Your task to perform on an android device: Clear the shopping cart on walmart. Add acer nitro to the cart on walmart, then select checkout. Image 0: 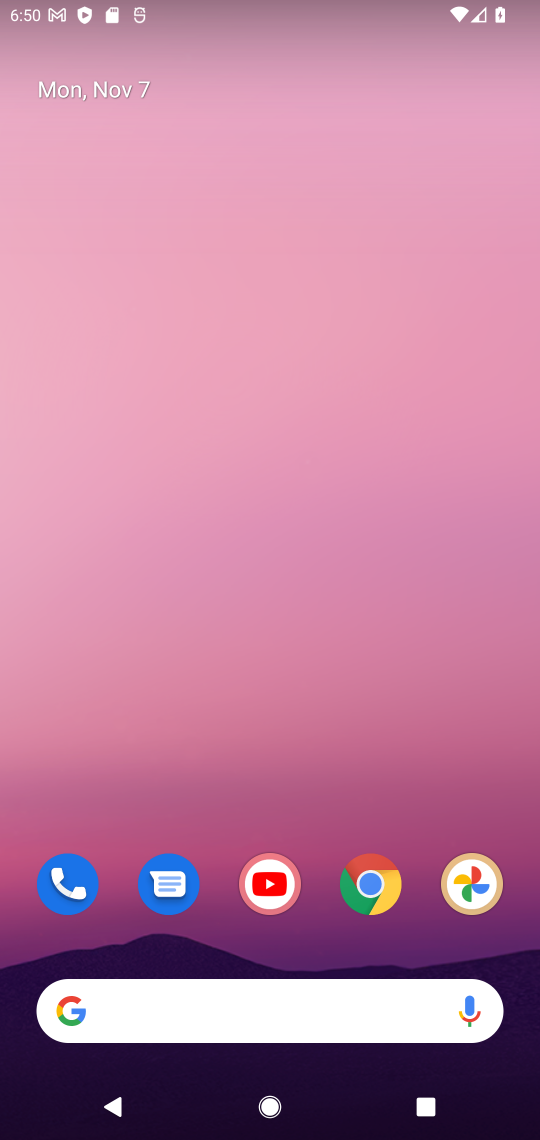
Step 0: click (381, 880)
Your task to perform on an android device: Clear the shopping cart on walmart. Add acer nitro to the cart on walmart, then select checkout. Image 1: 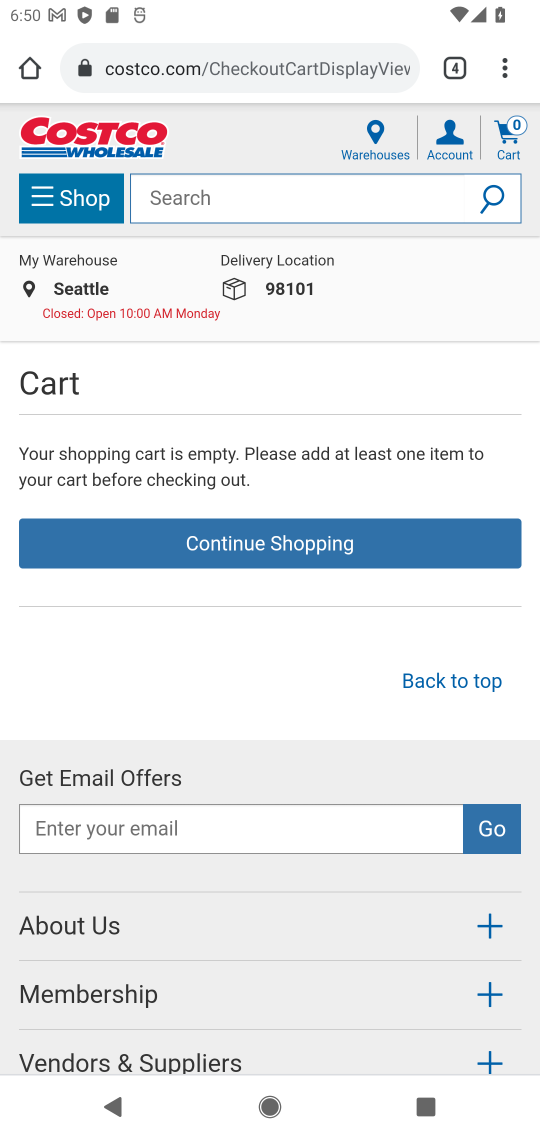
Step 1: click (445, 70)
Your task to perform on an android device: Clear the shopping cart on walmart. Add acer nitro to the cart on walmart, then select checkout. Image 2: 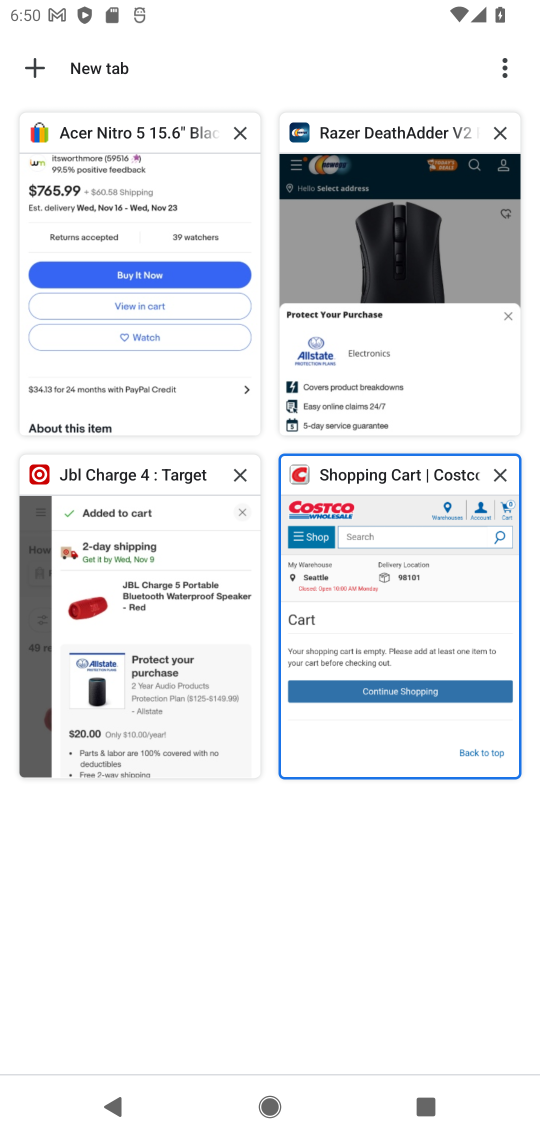
Step 2: click (36, 66)
Your task to perform on an android device: Clear the shopping cart on walmart. Add acer nitro to the cart on walmart, then select checkout. Image 3: 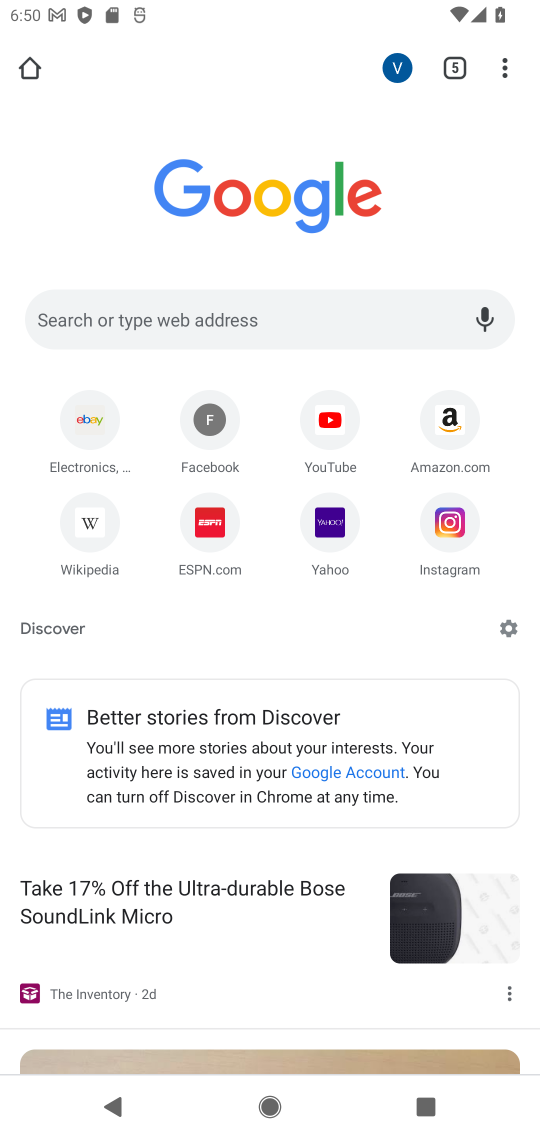
Step 3: click (93, 324)
Your task to perform on an android device: Clear the shopping cart on walmart. Add acer nitro to the cart on walmart, then select checkout. Image 4: 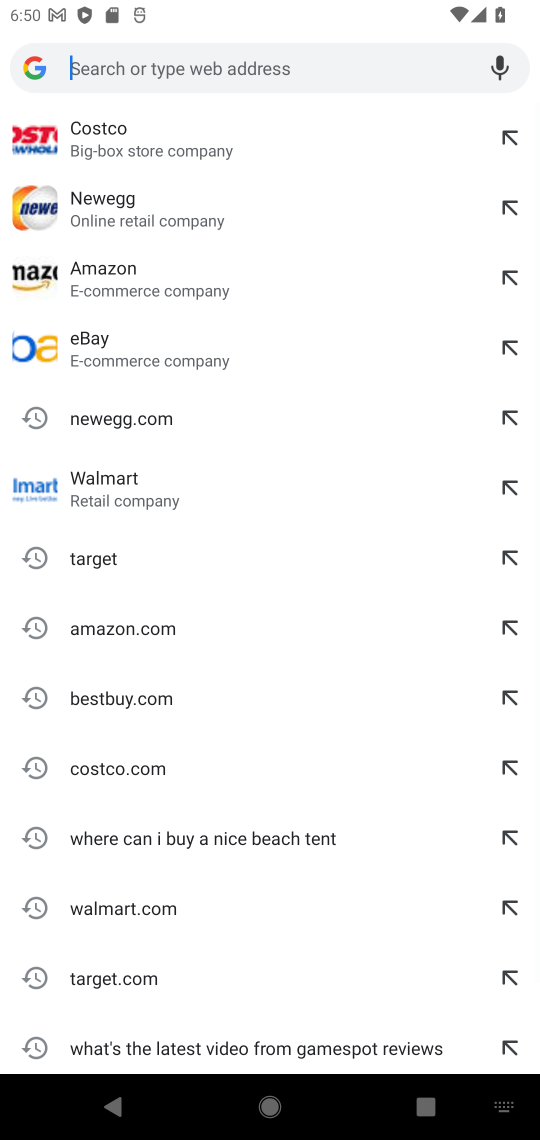
Step 4: click (109, 497)
Your task to perform on an android device: Clear the shopping cart on walmart. Add acer nitro to the cart on walmart, then select checkout. Image 5: 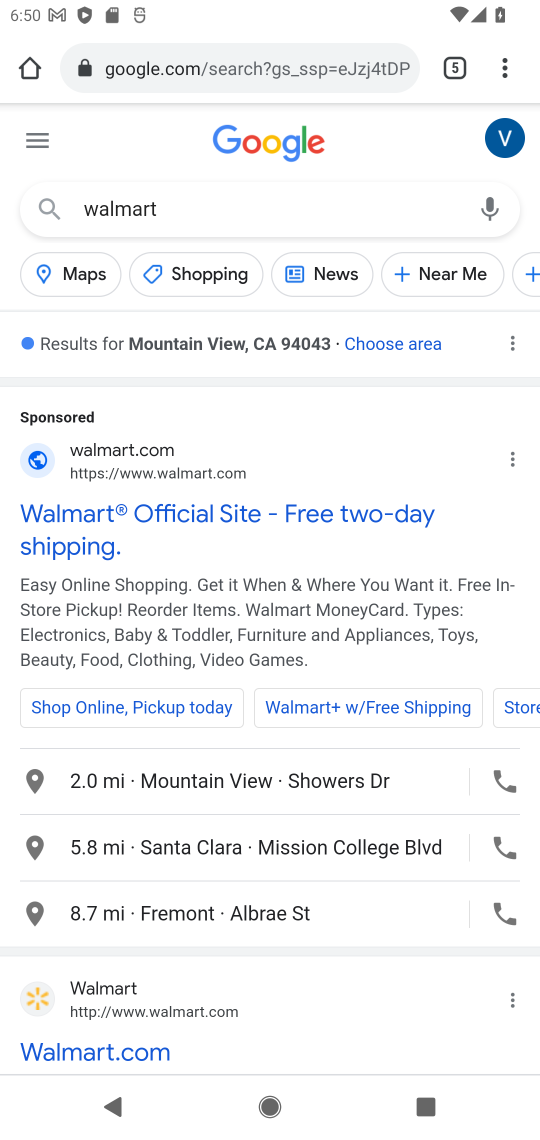
Step 5: drag from (297, 960) to (384, 328)
Your task to perform on an android device: Clear the shopping cart on walmart. Add acer nitro to the cart on walmart, then select checkout. Image 6: 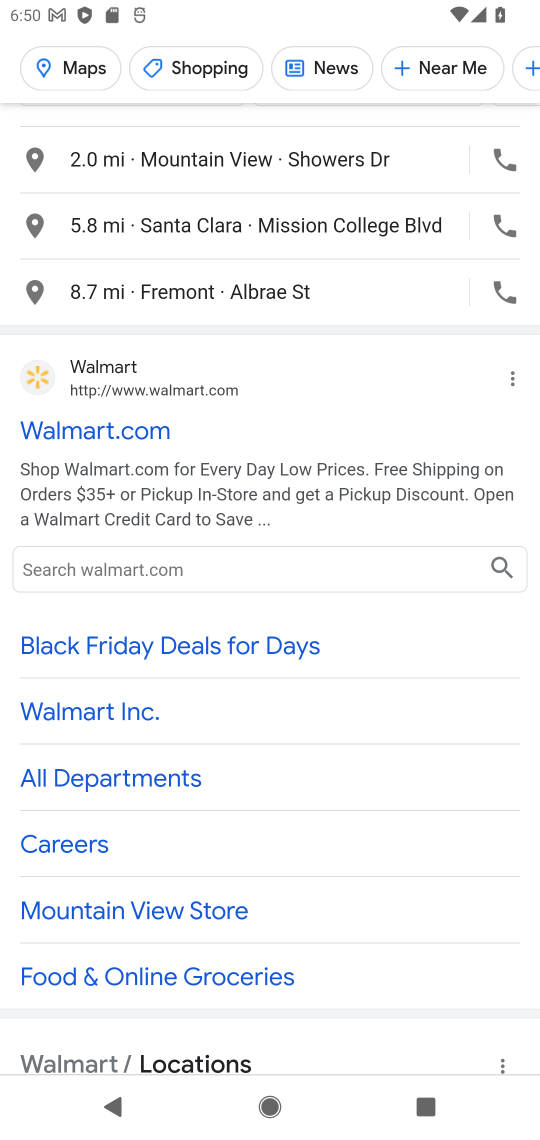
Step 6: click (128, 560)
Your task to perform on an android device: Clear the shopping cart on walmart. Add acer nitro to the cart on walmart, then select checkout. Image 7: 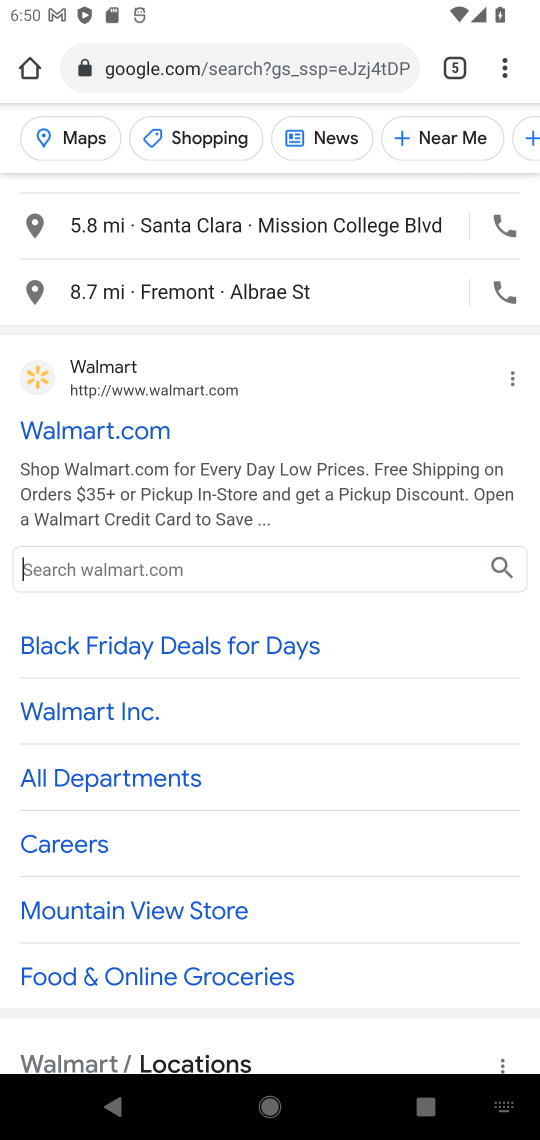
Step 7: type "acer nitro"
Your task to perform on an android device: Clear the shopping cart on walmart. Add acer nitro to the cart on walmart, then select checkout. Image 8: 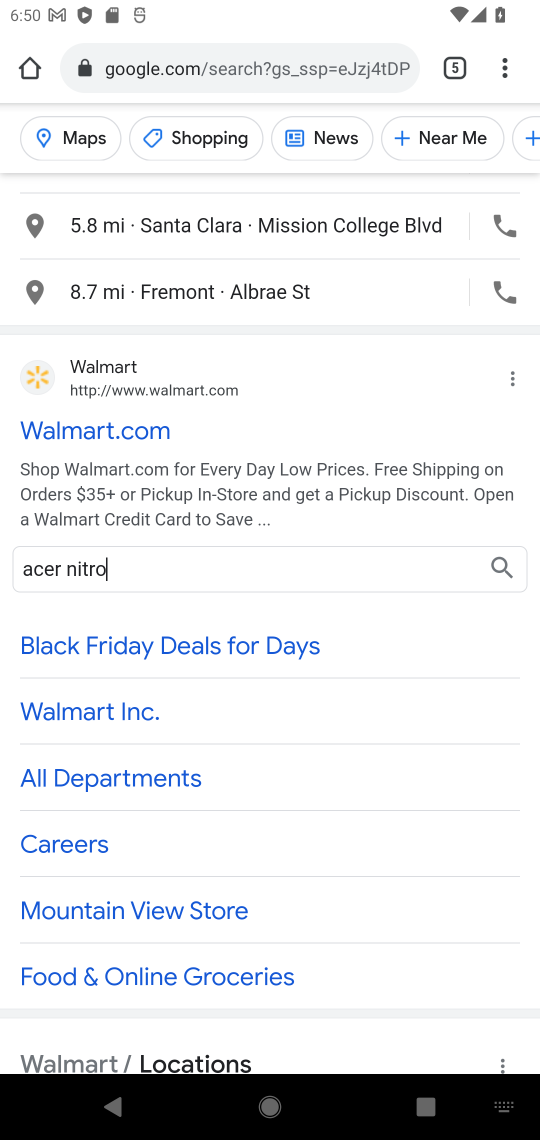
Step 8: click (502, 568)
Your task to perform on an android device: Clear the shopping cart on walmart. Add acer nitro to the cart on walmart, then select checkout. Image 9: 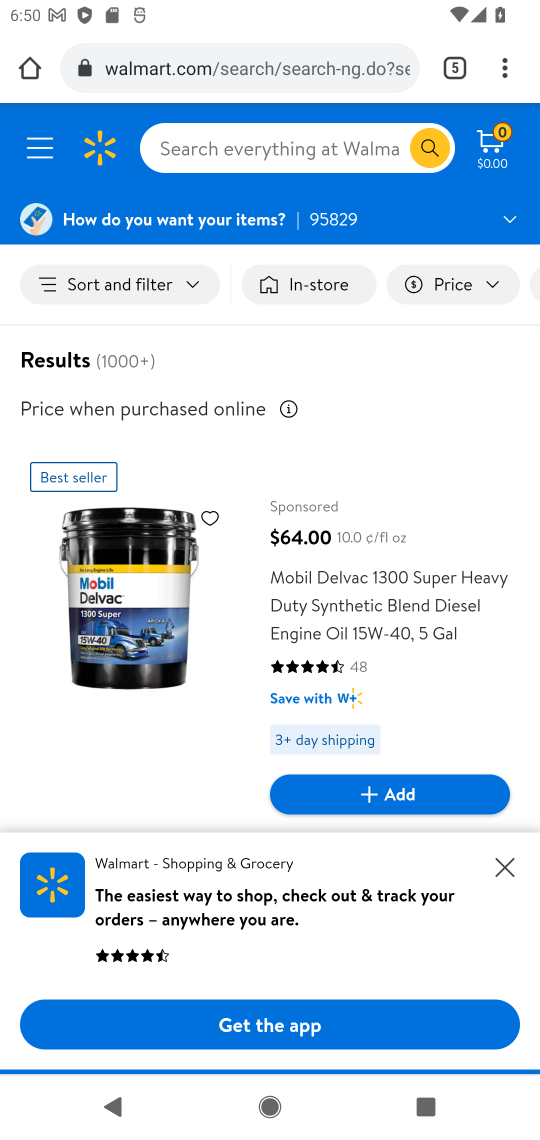
Step 9: click (504, 870)
Your task to perform on an android device: Clear the shopping cart on walmart. Add acer nitro to the cart on walmart, then select checkout. Image 10: 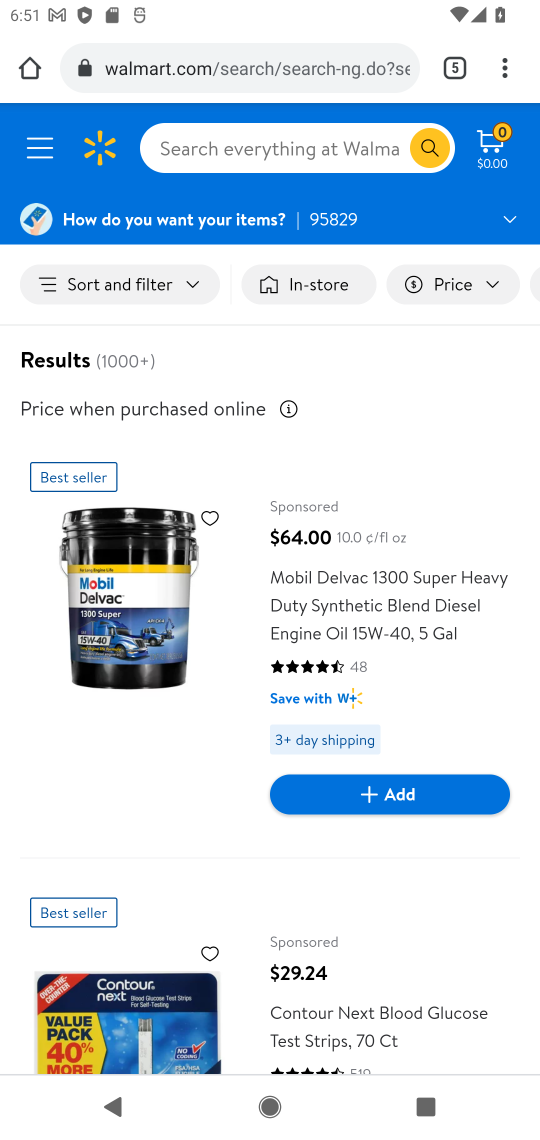
Step 10: click (269, 148)
Your task to perform on an android device: Clear the shopping cart on walmart. Add acer nitro to the cart on walmart, then select checkout. Image 11: 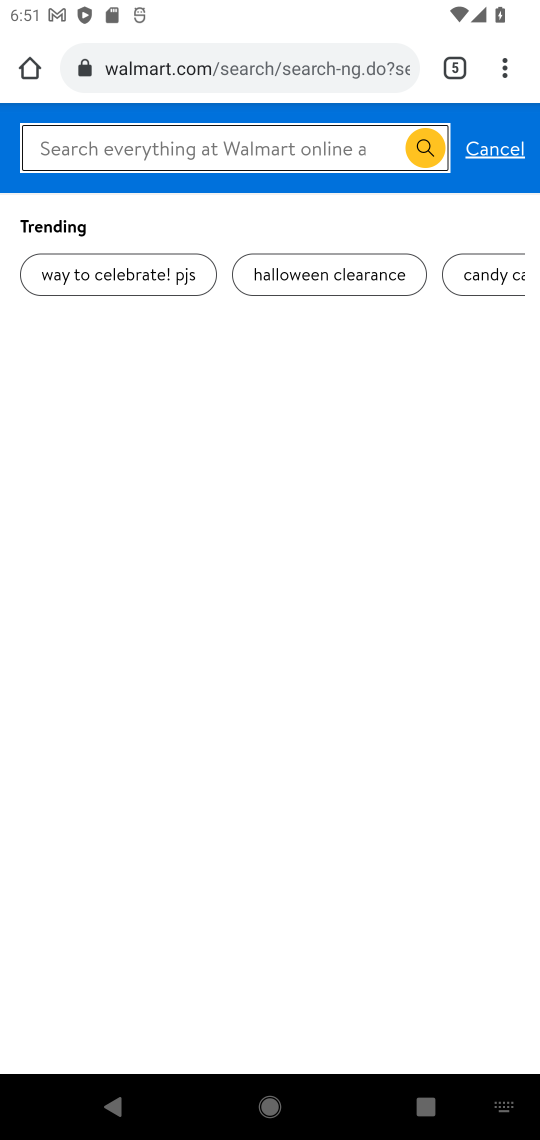
Step 11: type "acer nitro"
Your task to perform on an android device: Clear the shopping cart on walmart. Add acer nitro to the cart on walmart, then select checkout. Image 12: 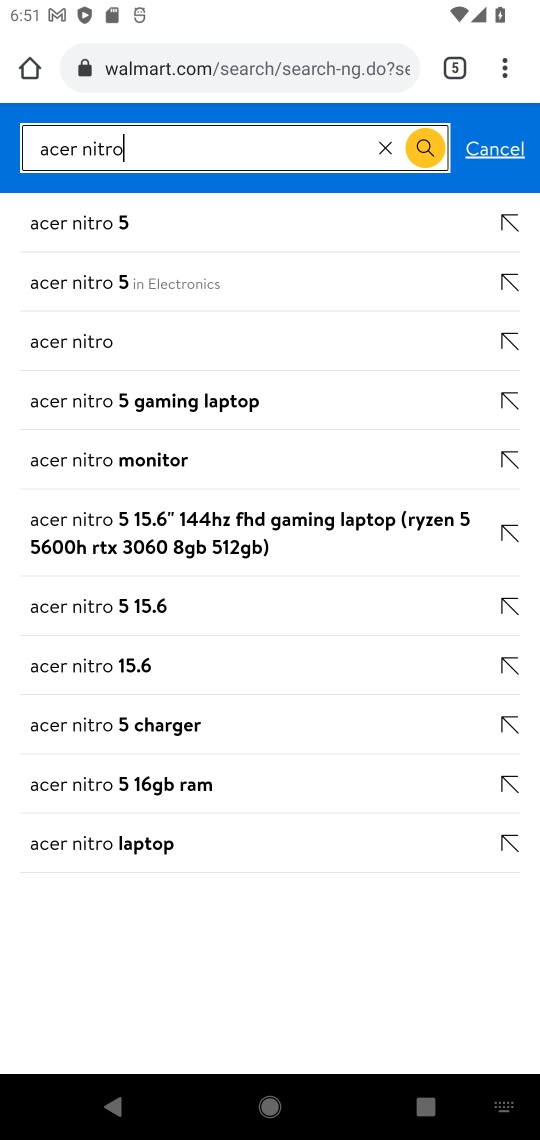
Step 12: click (59, 286)
Your task to perform on an android device: Clear the shopping cart on walmart. Add acer nitro to the cart on walmart, then select checkout. Image 13: 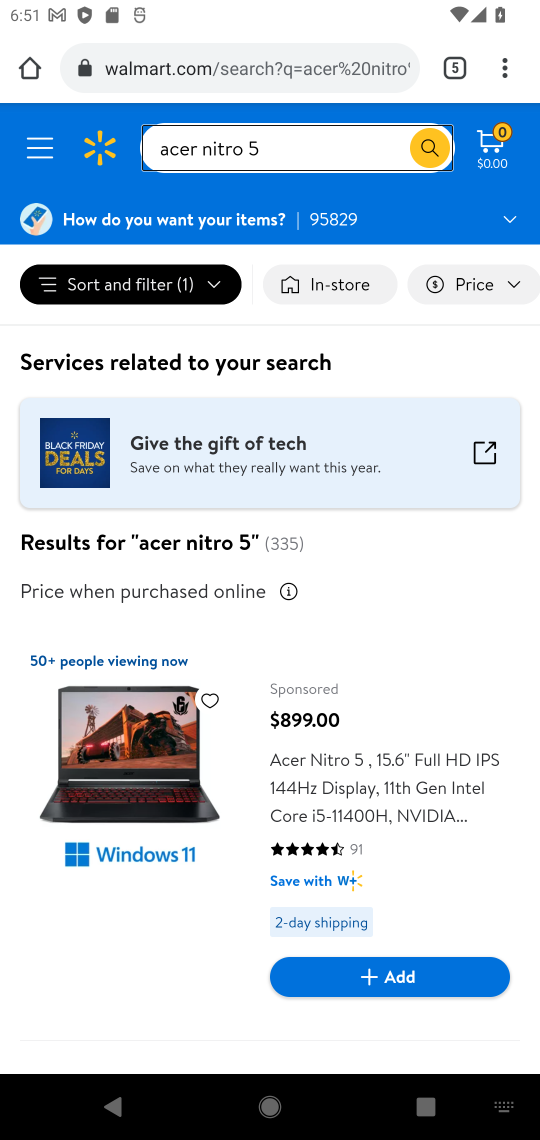
Step 13: click (411, 983)
Your task to perform on an android device: Clear the shopping cart on walmart. Add acer nitro to the cart on walmart, then select checkout. Image 14: 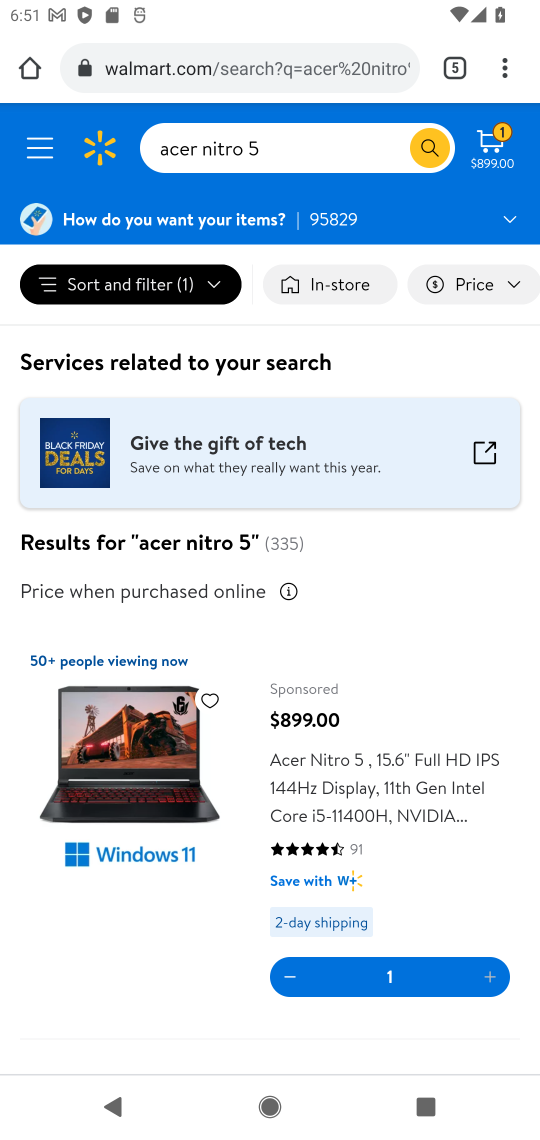
Step 14: task complete